Your task to perform on an android device: turn off notifications settings in the gmail app Image 0: 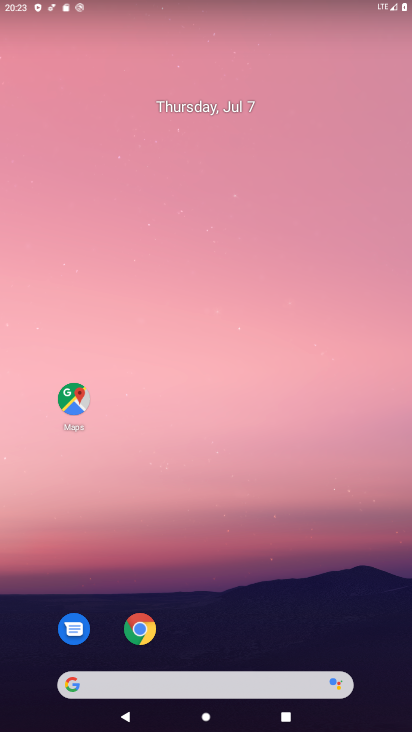
Step 0: drag from (192, 707) to (265, 106)
Your task to perform on an android device: turn off notifications settings in the gmail app Image 1: 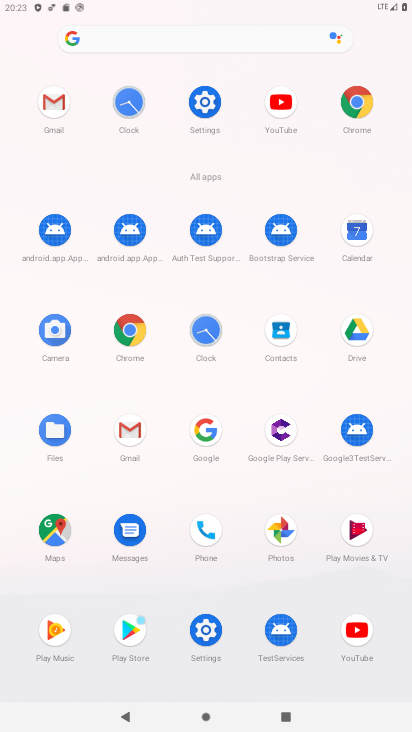
Step 1: click (135, 425)
Your task to perform on an android device: turn off notifications settings in the gmail app Image 2: 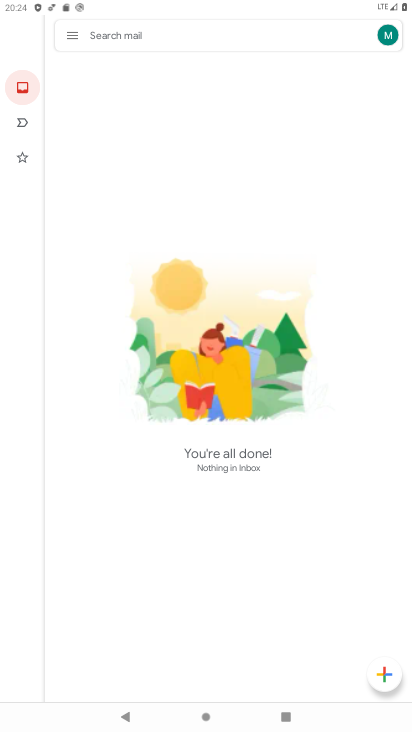
Step 2: click (77, 37)
Your task to perform on an android device: turn off notifications settings in the gmail app Image 3: 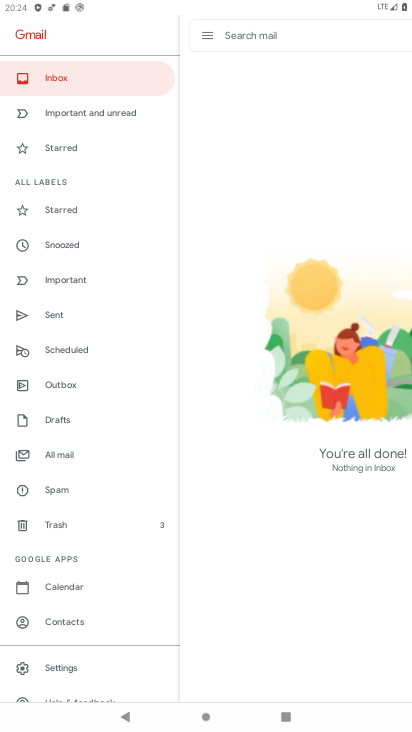
Step 3: drag from (100, 601) to (133, 267)
Your task to perform on an android device: turn off notifications settings in the gmail app Image 4: 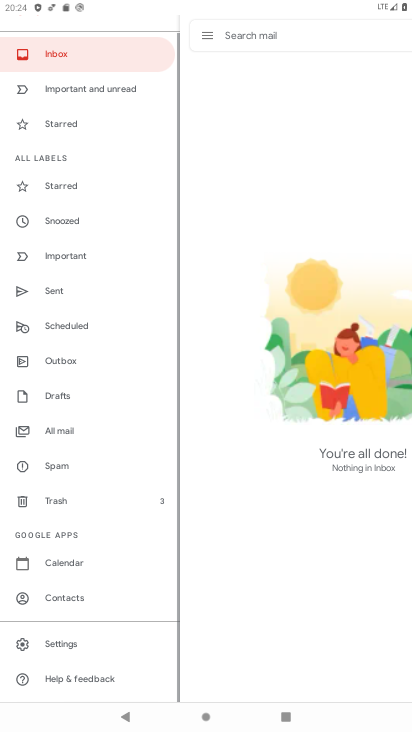
Step 4: click (70, 649)
Your task to perform on an android device: turn off notifications settings in the gmail app Image 5: 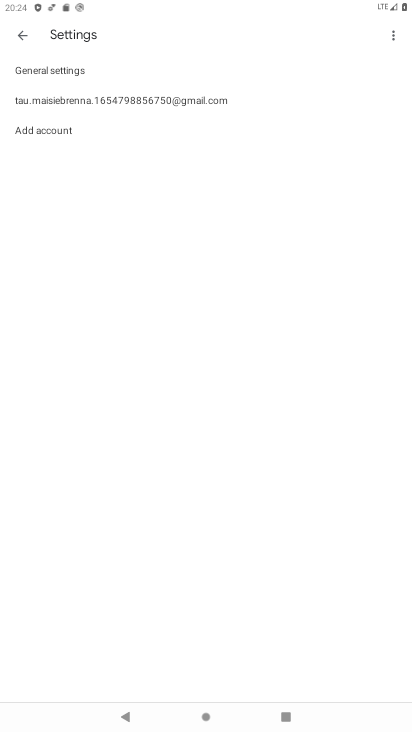
Step 5: click (110, 101)
Your task to perform on an android device: turn off notifications settings in the gmail app Image 6: 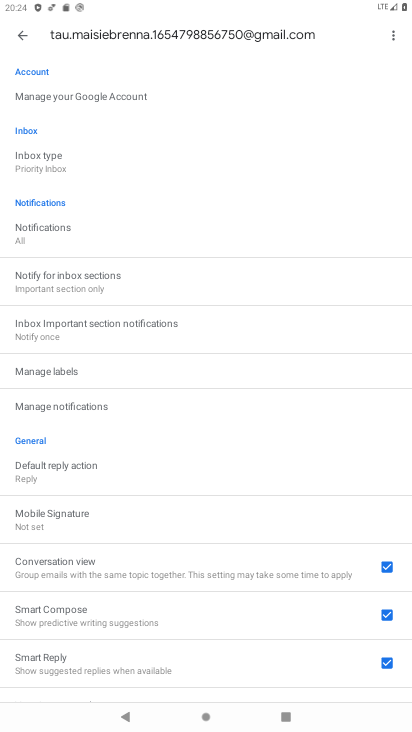
Step 6: click (91, 401)
Your task to perform on an android device: turn off notifications settings in the gmail app Image 7: 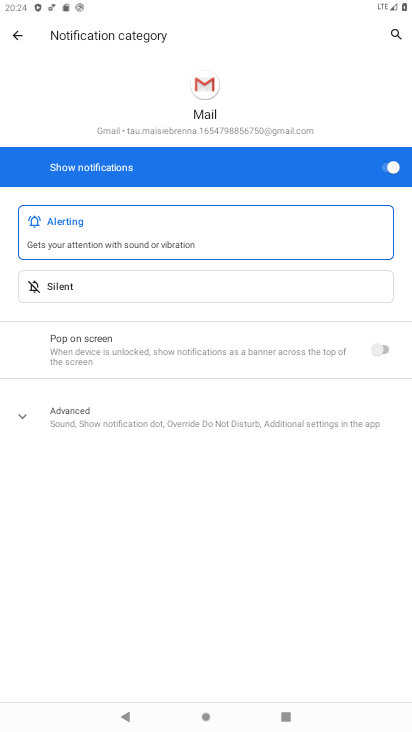
Step 7: click (383, 168)
Your task to perform on an android device: turn off notifications settings in the gmail app Image 8: 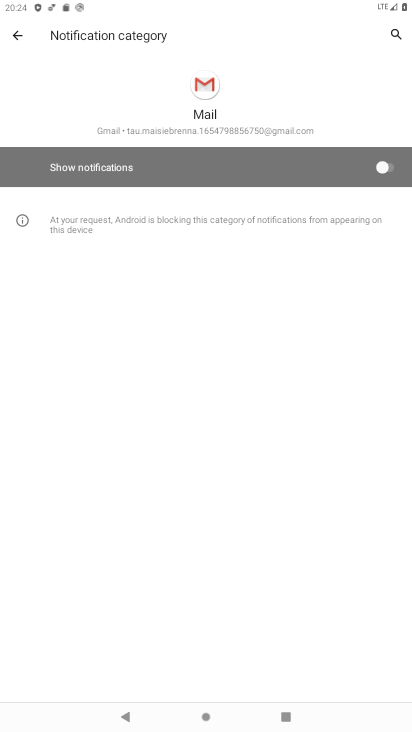
Step 8: task complete